Your task to perform on an android device: change keyboard looks Image 0: 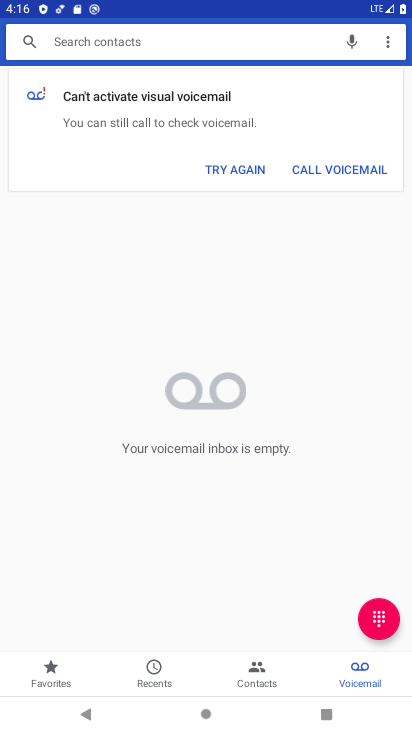
Step 0: press back button
Your task to perform on an android device: change keyboard looks Image 1: 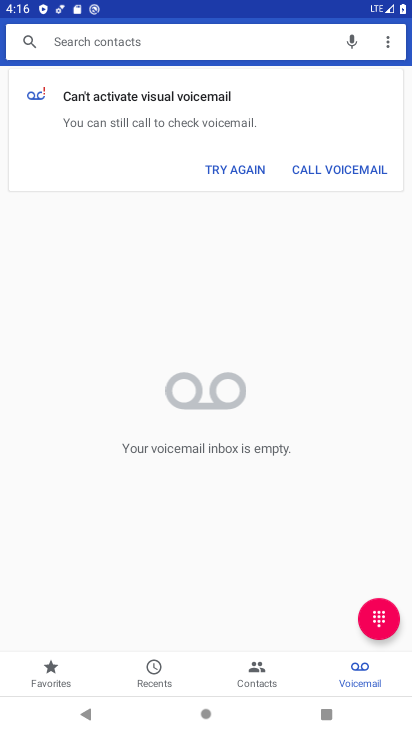
Step 1: press back button
Your task to perform on an android device: change keyboard looks Image 2: 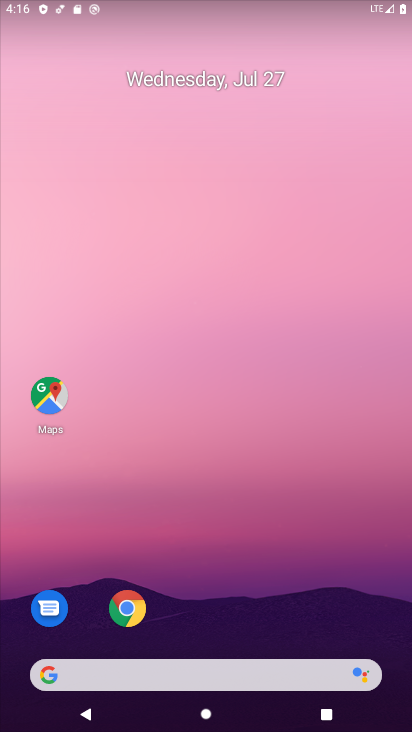
Step 2: drag from (290, 536) to (251, 124)
Your task to perform on an android device: change keyboard looks Image 3: 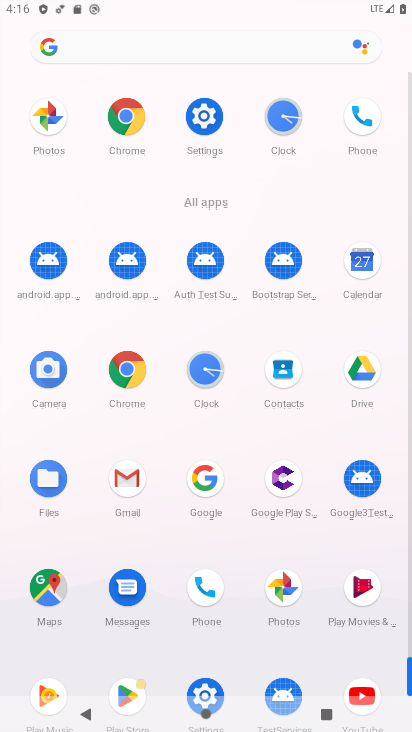
Step 3: click (204, 692)
Your task to perform on an android device: change keyboard looks Image 4: 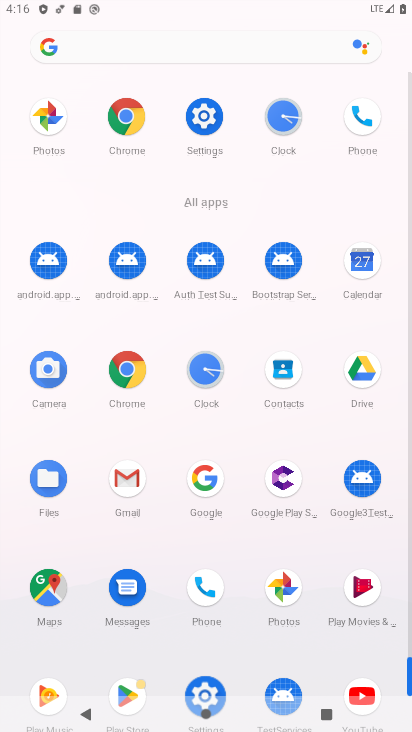
Step 4: click (204, 688)
Your task to perform on an android device: change keyboard looks Image 5: 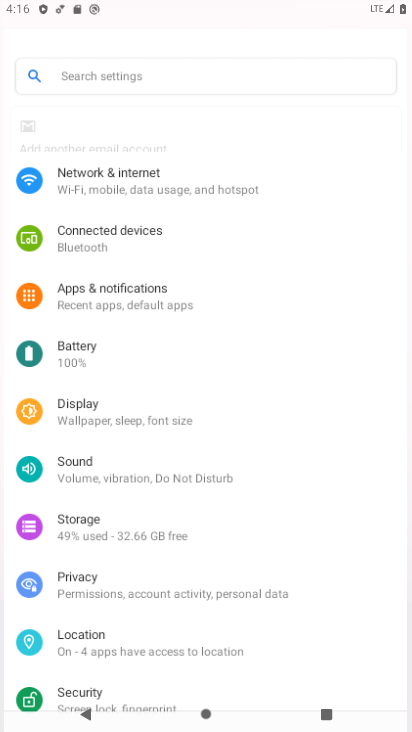
Step 5: click (204, 688)
Your task to perform on an android device: change keyboard looks Image 6: 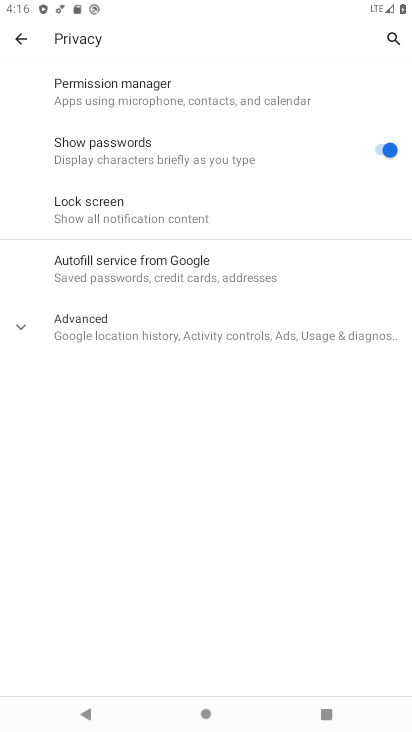
Step 6: click (21, 35)
Your task to perform on an android device: change keyboard looks Image 7: 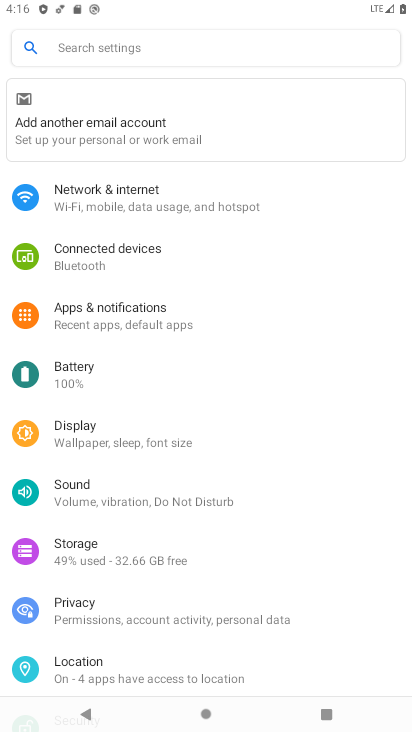
Step 7: drag from (157, 526) to (114, 193)
Your task to perform on an android device: change keyboard looks Image 8: 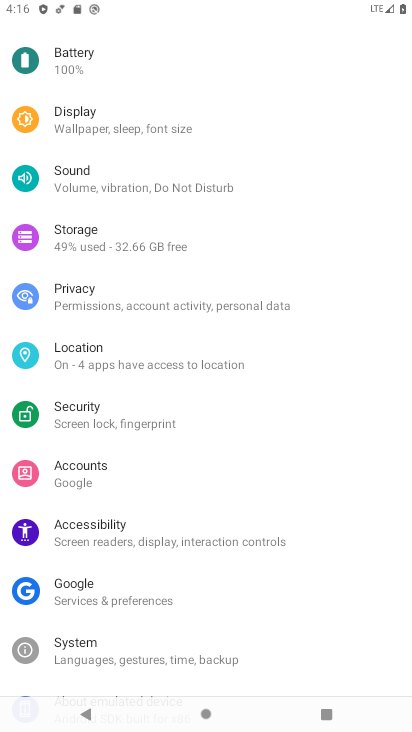
Step 8: drag from (135, 446) to (139, 137)
Your task to perform on an android device: change keyboard looks Image 9: 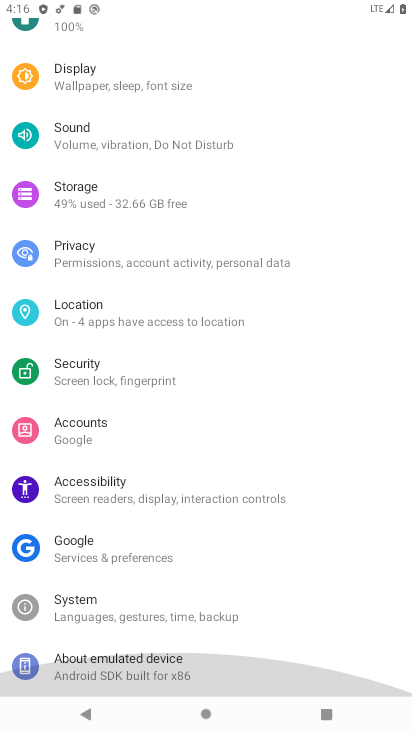
Step 9: drag from (165, 499) to (173, 156)
Your task to perform on an android device: change keyboard looks Image 10: 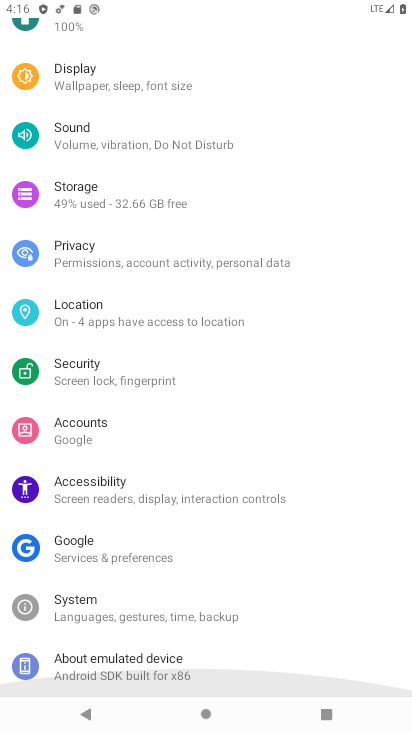
Step 10: drag from (189, 547) to (186, 169)
Your task to perform on an android device: change keyboard looks Image 11: 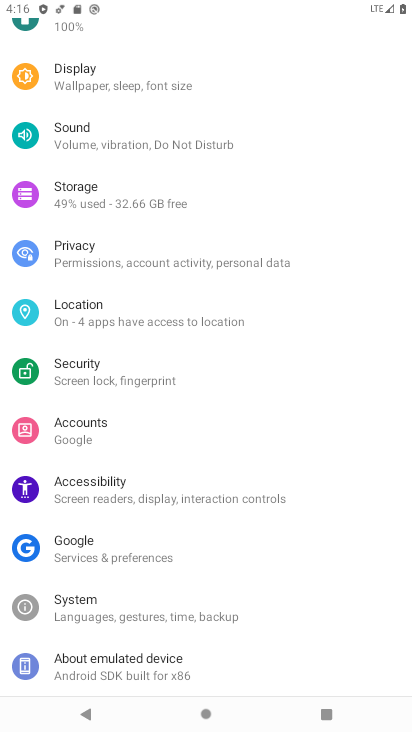
Step 11: click (85, 596)
Your task to perform on an android device: change keyboard looks Image 12: 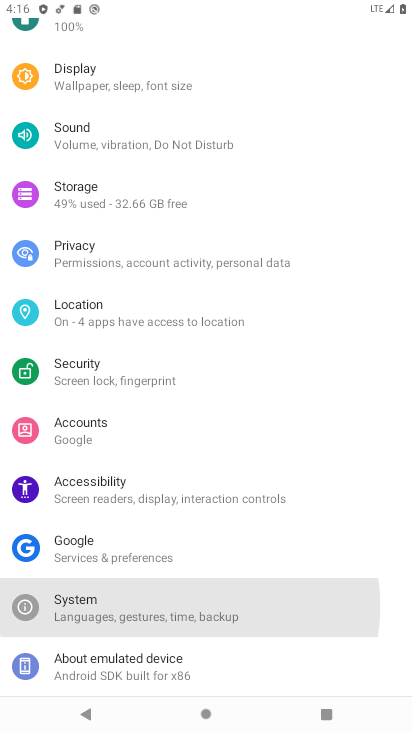
Step 12: click (84, 598)
Your task to perform on an android device: change keyboard looks Image 13: 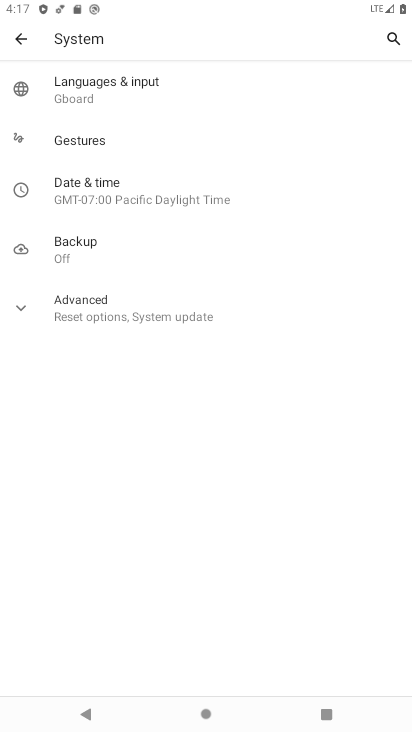
Step 13: click (72, 90)
Your task to perform on an android device: change keyboard looks Image 14: 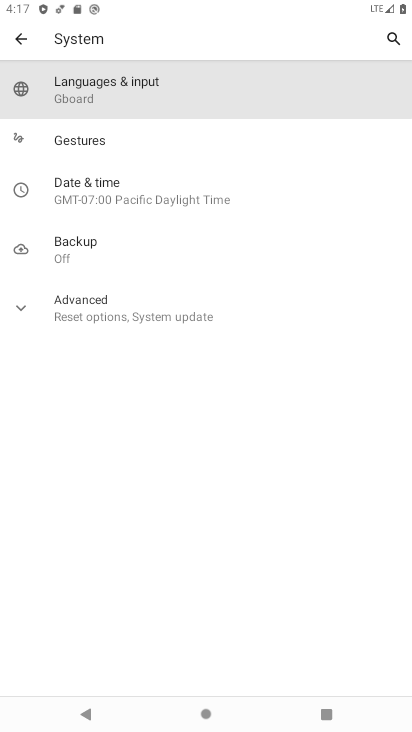
Step 14: click (71, 89)
Your task to perform on an android device: change keyboard looks Image 15: 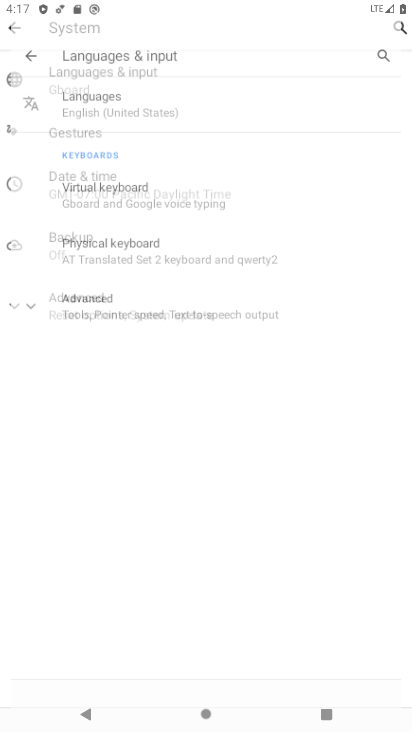
Step 15: click (70, 90)
Your task to perform on an android device: change keyboard looks Image 16: 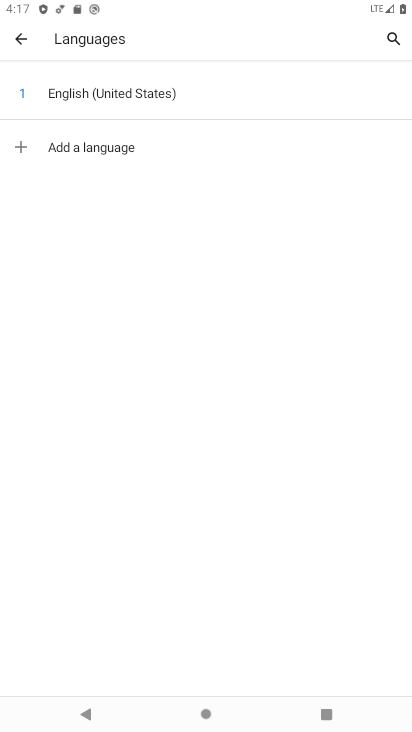
Step 16: click (13, 37)
Your task to perform on an android device: change keyboard looks Image 17: 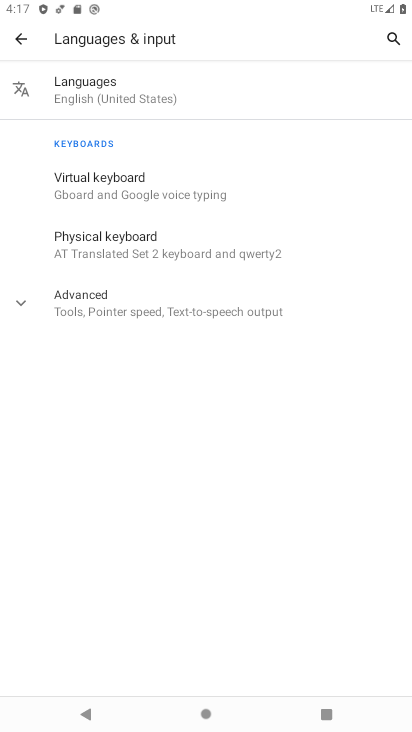
Step 17: click (88, 183)
Your task to perform on an android device: change keyboard looks Image 18: 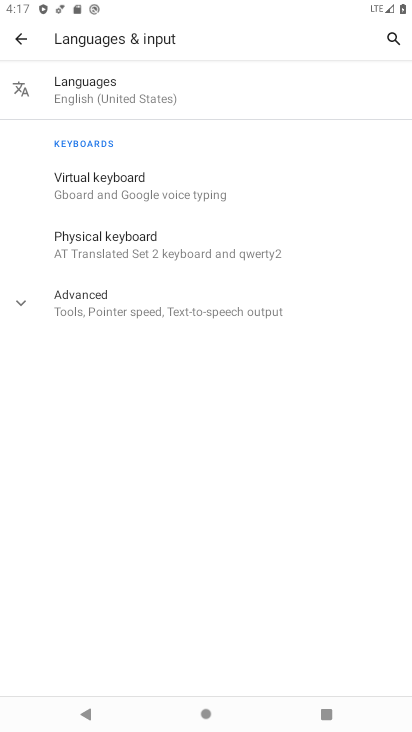
Step 18: click (88, 183)
Your task to perform on an android device: change keyboard looks Image 19: 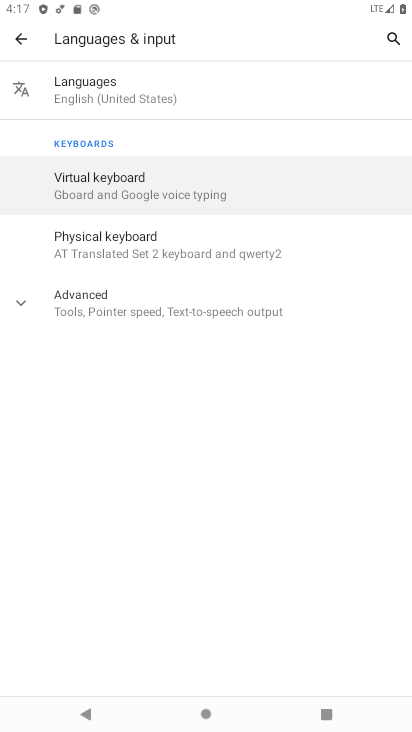
Step 19: click (88, 183)
Your task to perform on an android device: change keyboard looks Image 20: 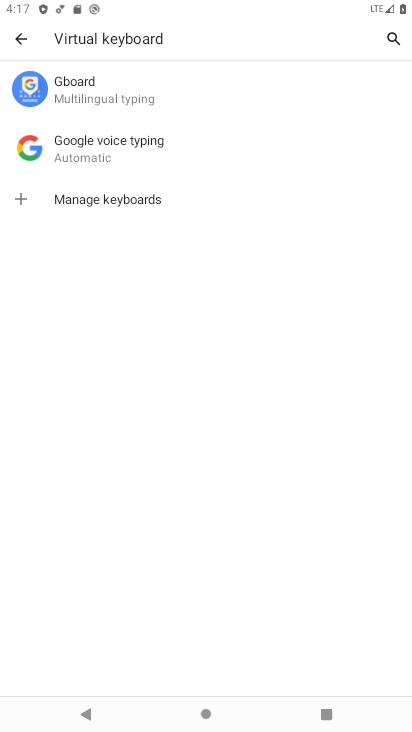
Step 20: click (73, 94)
Your task to perform on an android device: change keyboard looks Image 21: 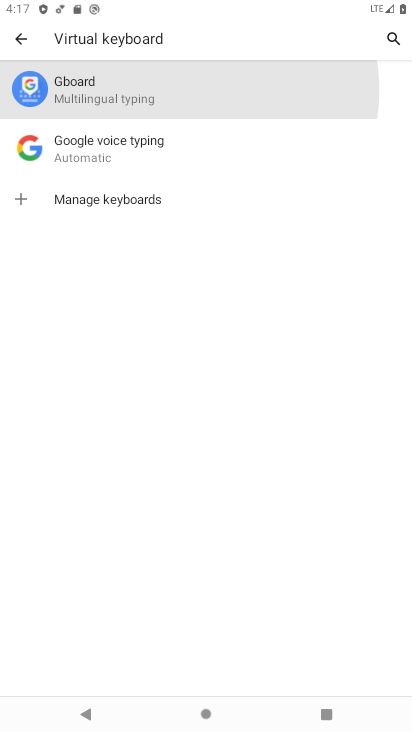
Step 21: click (72, 93)
Your task to perform on an android device: change keyboard looks Image 22: 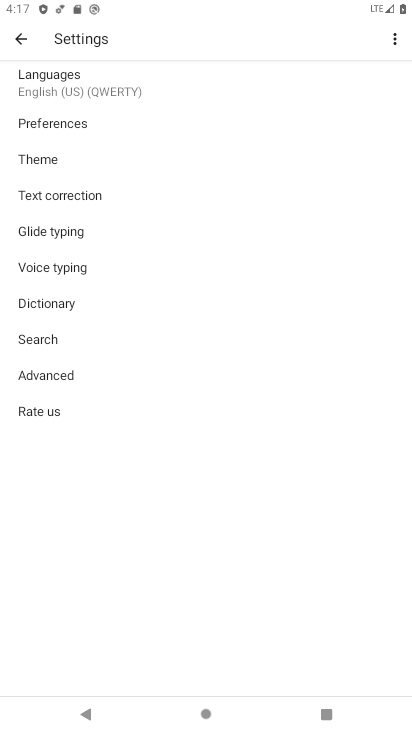
Step 22: click (54, 151)
Your task to perform on an android device: change keyboard looks Image 23: 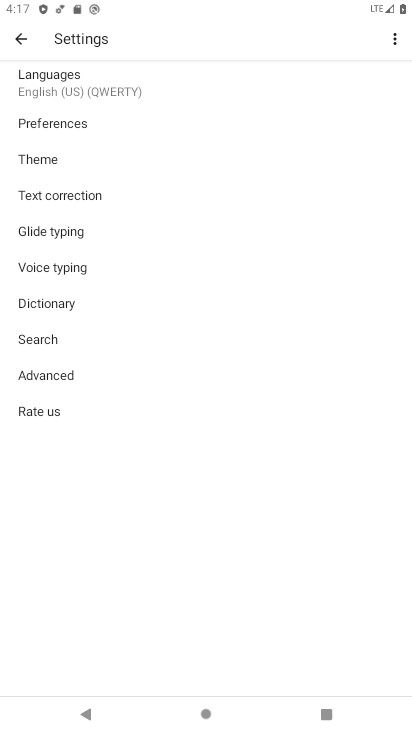
Step 23: click (54, 151)
Your task to perform on an android device: change keyboard looks Image 24: 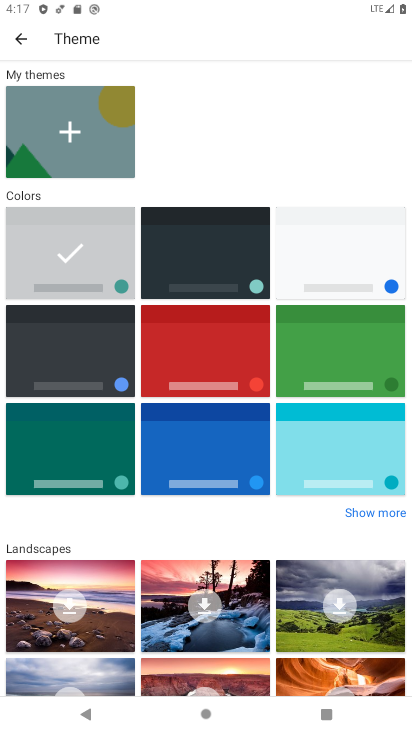
Step 24: click (62, 351)
Your task to perform on an android device: change keyboard looks Image 25: 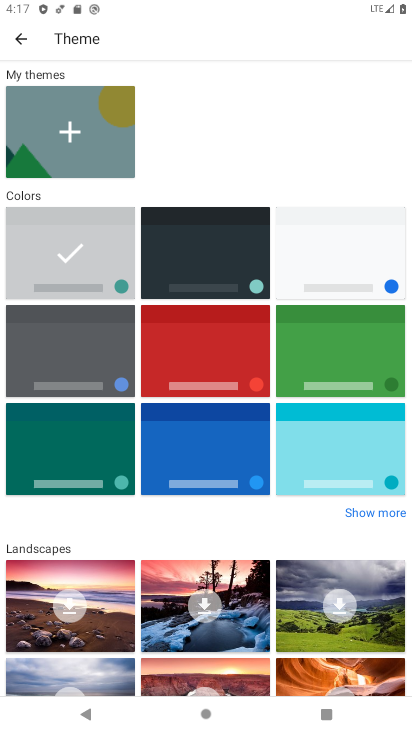
Step 25: click (63, 350)
Your task to perform on an android device: change keyboard looks Image 26: 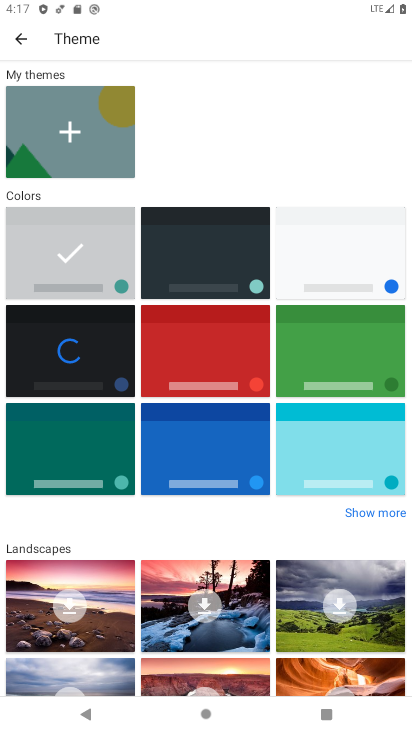
Step 26: click (68, 354)
Your task to perform on an android device: change keyboard looks Image 27: 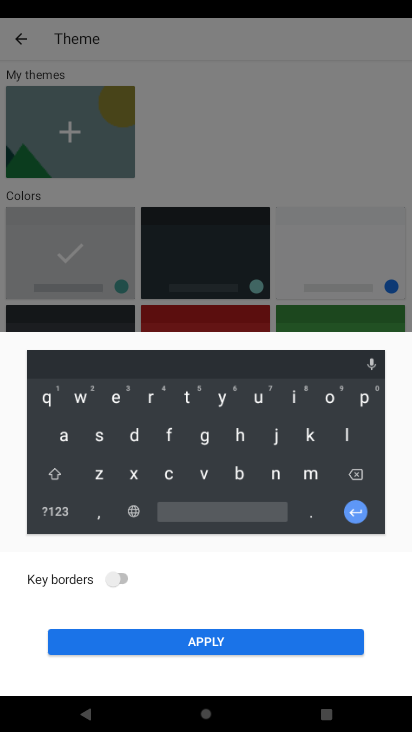
Step 27: click (212, 634)
Your task to perform on an android device: change keyboard looks Image 28: 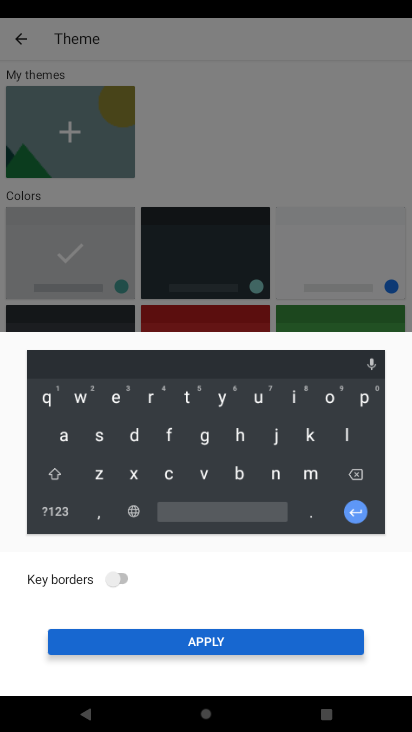
Step 28: click (213, 634)
Your task to perform on an android device: change keyboard looks Image 29: 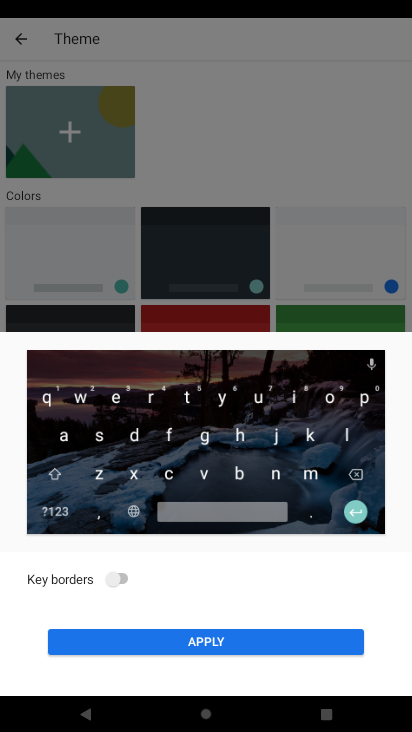
Step 29: task complete